Your task to perform on an android device: Open Maps and search for coffee Image 0: 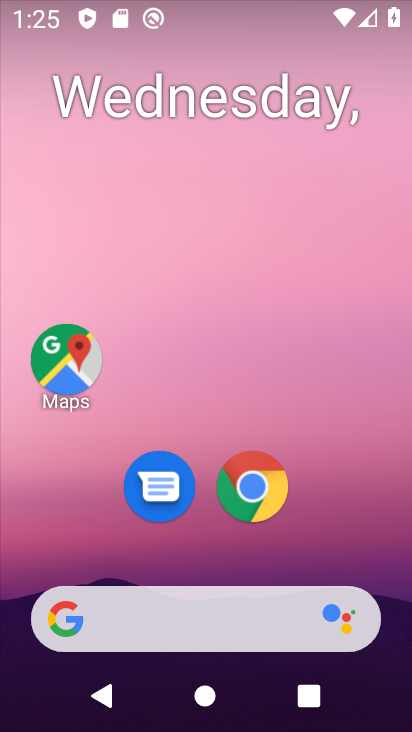
Step 0: click (68, 361)
Your task to perform on an android device: Open Maps and search for coffee Image 1: 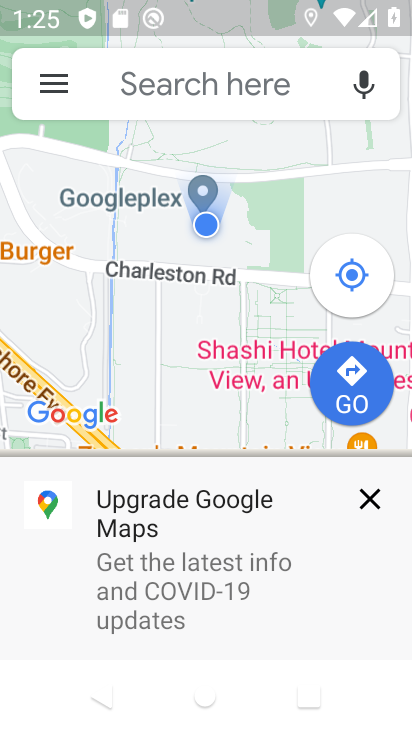
Step 1: click (174, 84)
Your task to perform on an android device: Open Maps and search for coffee Image 2: 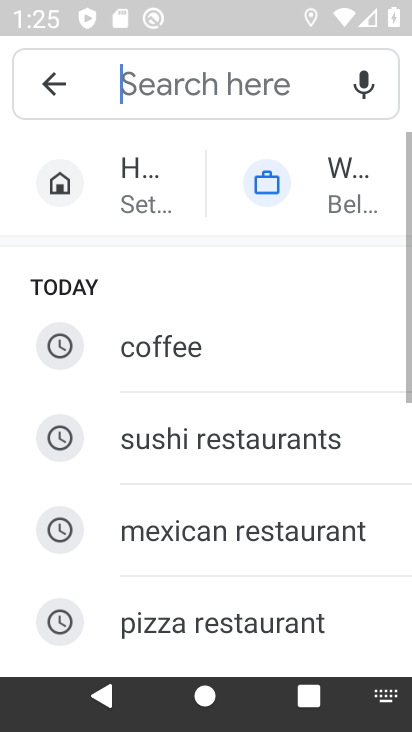
Step 2: click (186, 339)
Your task to perform on an android device: Open Maps and search for coffee Image 3: 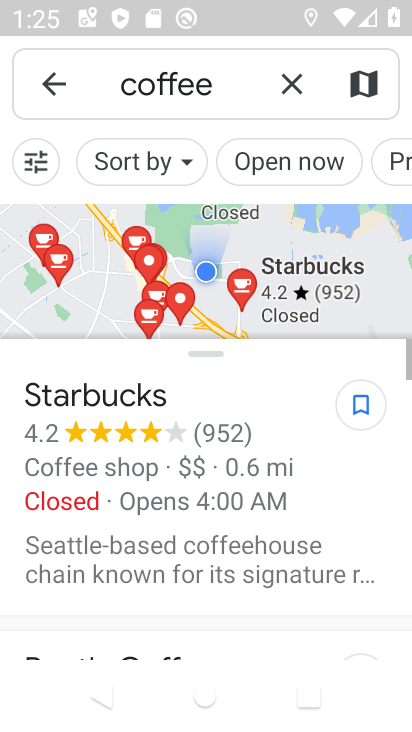
Step 3: task complete